Your task to perform on an android device: toggle improve location accuracy Image 0: 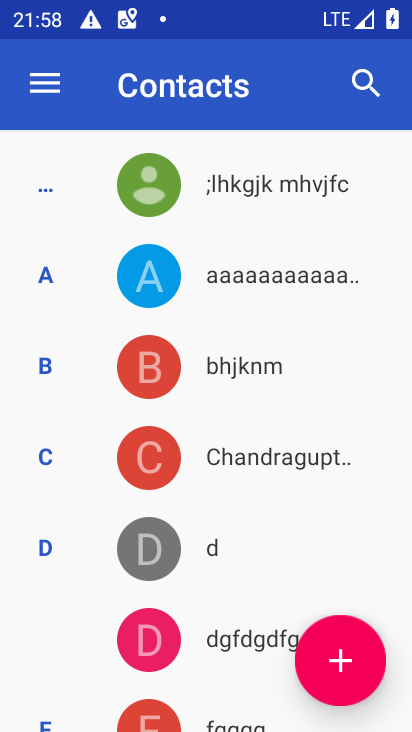
Step 0: press home button
Your task to perform on an android device: toggle improve location accuracy Image 1: 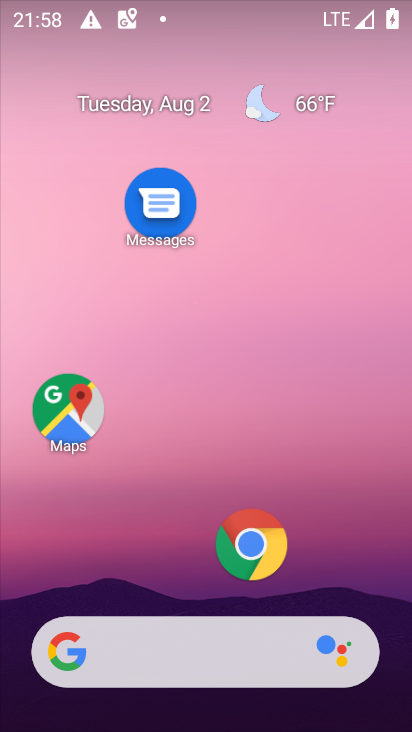
Step 1: drag from (174, 588) to (229, 226)
Your task to perform on an android device: toggle improve location accuracy Image 2: 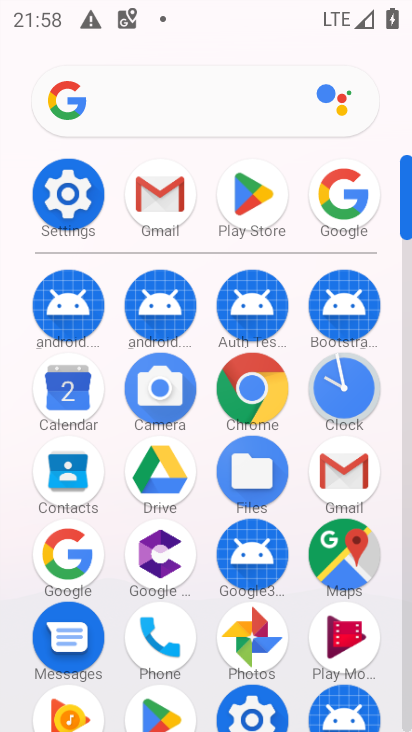
Step 2: click (87, 201)
Your task to perform on an android device: toggle improve location accuracy Image 3: 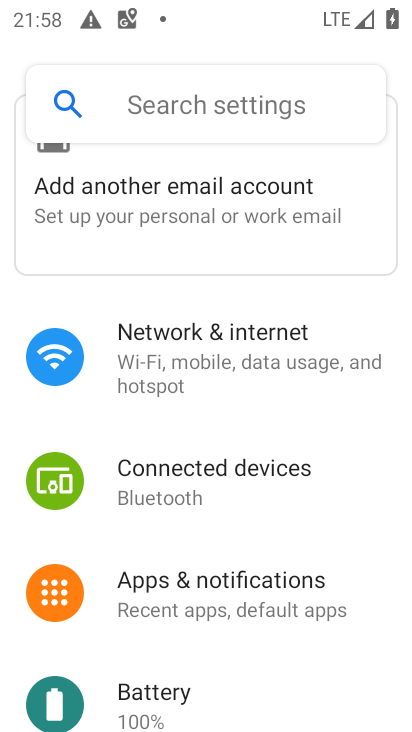
Step 3: drag from (307, 662) to (296, 300)
Your task to perform on an android device: toggle improve location accuracy Image 4: 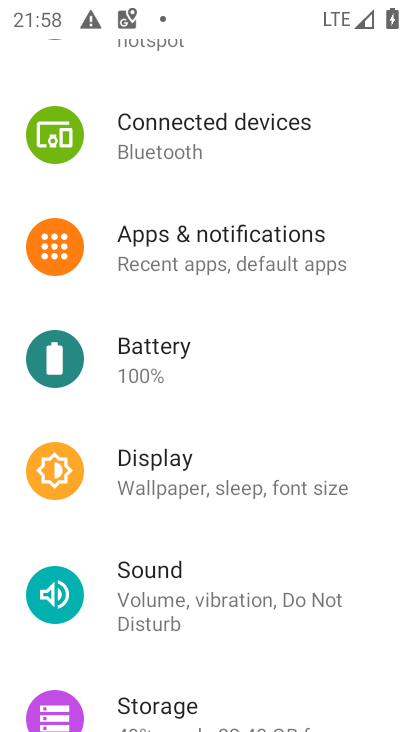
Step 4: drag from (258, 630) to (261, 288)
Your task to perform on an android device: toggle improve location accuracy Image 5: 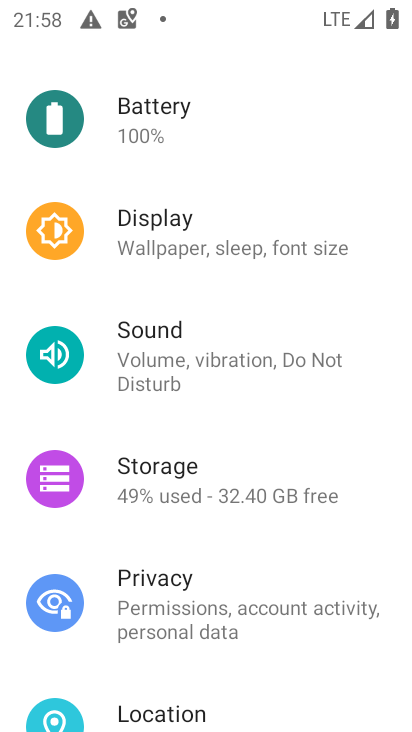
Step 5: drag from (258, 634) to (258, 331)
Your task to perform on an android device: toggle improve location accuracy Image 6: 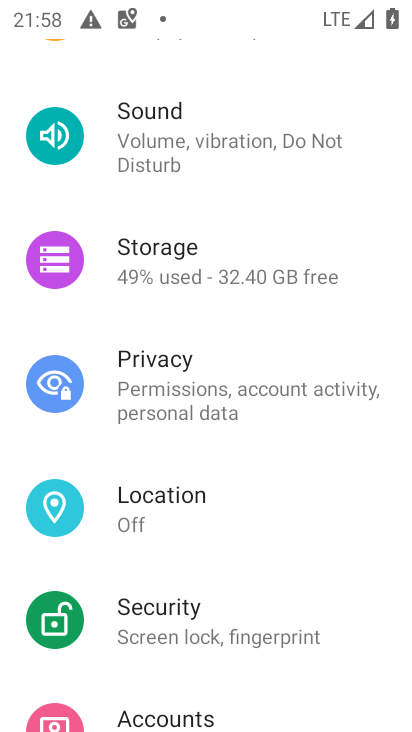
Step 6: click (214, 505)
Your task to perform on an android device: toggle improve location accuracy Image 7: 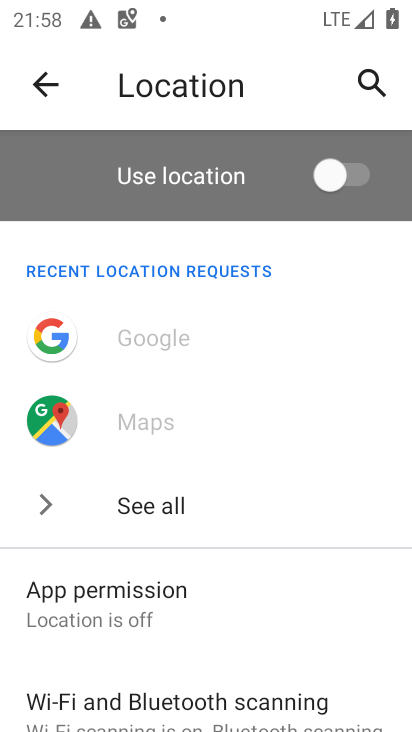
Step 7: drag from (224, 625) to (240, 267)
Your task to perform on an android device: toggle improve location accuracy Image 8: 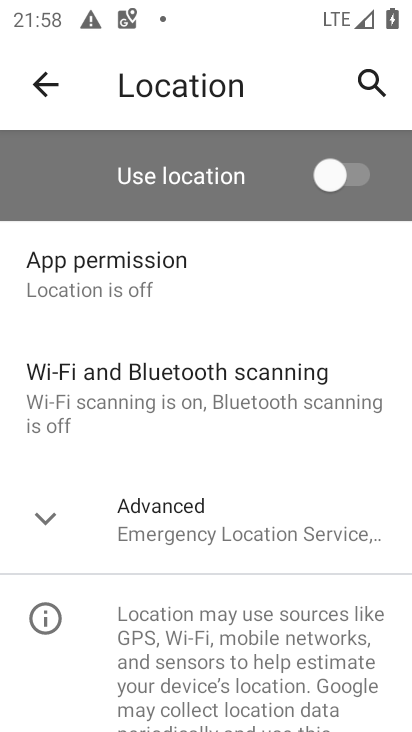
Step 8: click (223, 529)
Your task to perform on an android device: toggle improve location accuracy Image 9: 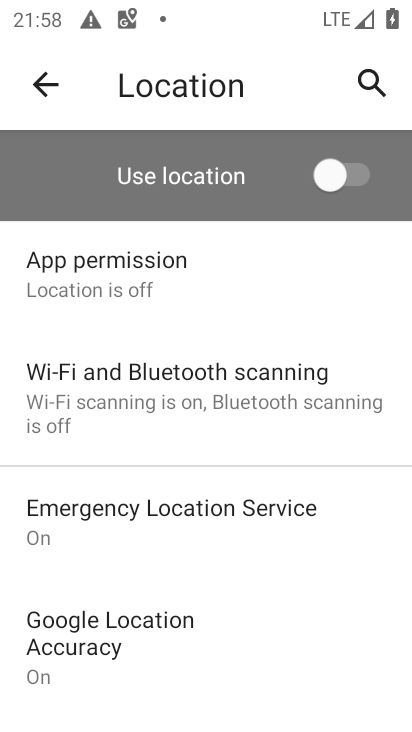
Step 9: click (170, 638)
Your task to perform on an android device: toggle improve location accuracy Image 10: 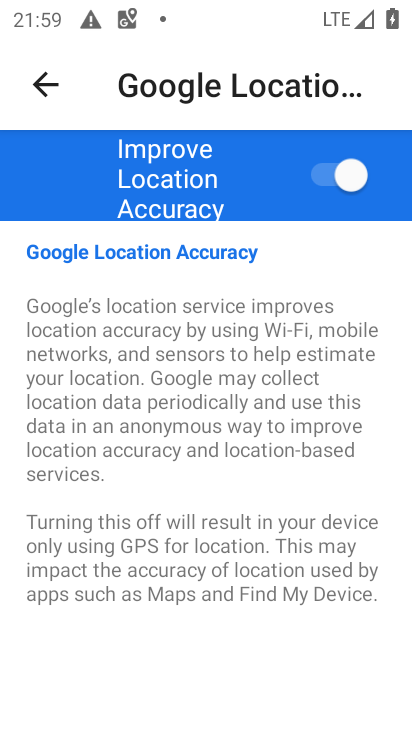
Step 10: click (336, 178)
Your task to perform on an android device: toggle improve location accuracy Image 11: 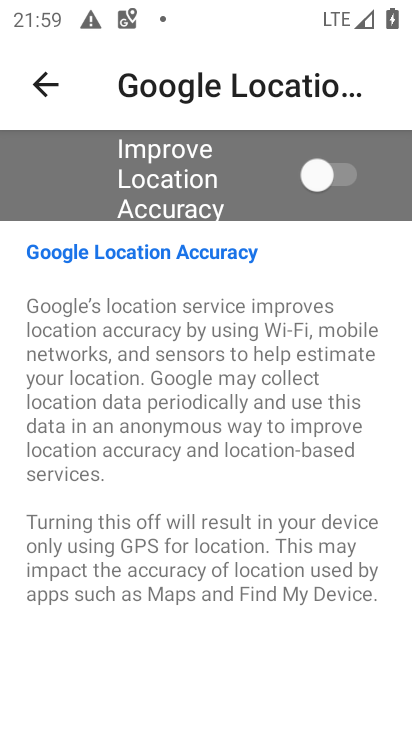
Step 11: task complete